Your task to perform on an android device: search for starred emails in the gmail app Image 0: 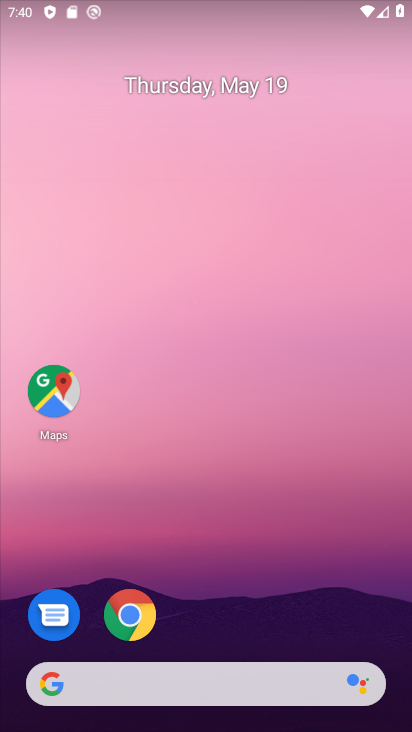
Step 0: drag from (190, 664) to (285, 241)
Your task to perform on an android device: search for starred emails in the gmail app Image 1: 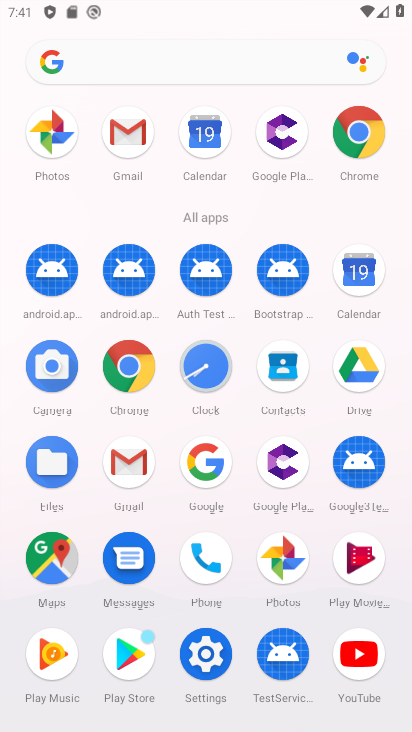
Step 1: click (131, 474)
Your task to perform on an android device: search for starred emails in the gmail app Image 2: 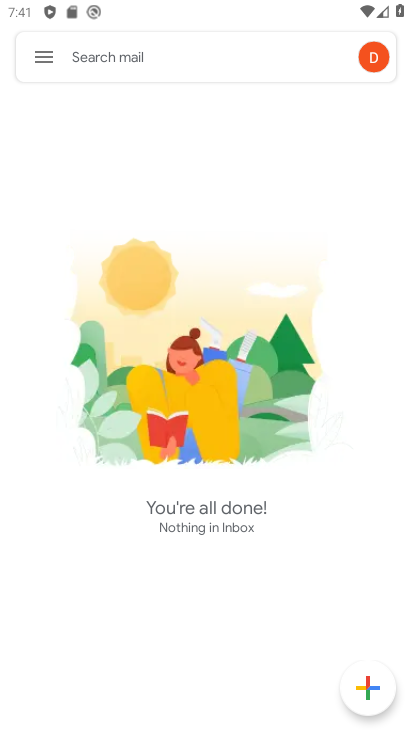
Step 2: click (45, 54)
Your task to perform on an android device: search for starred emails in the gmail app Image 3: 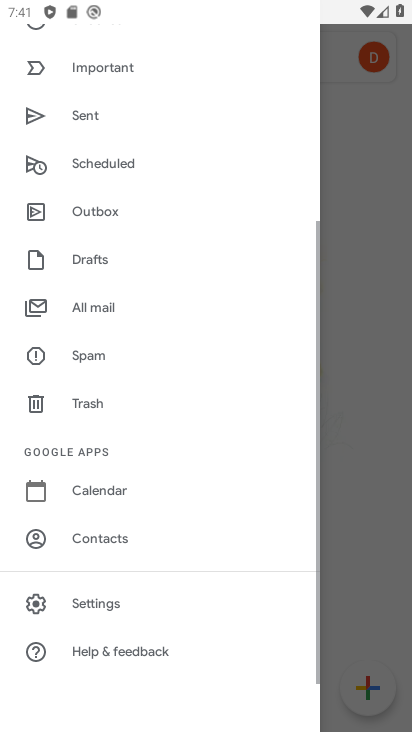
Step 3: drag from (140, 234) to (120, 509)
Your task to perform on an android device: search for starred emails in the gmail app Image 4: 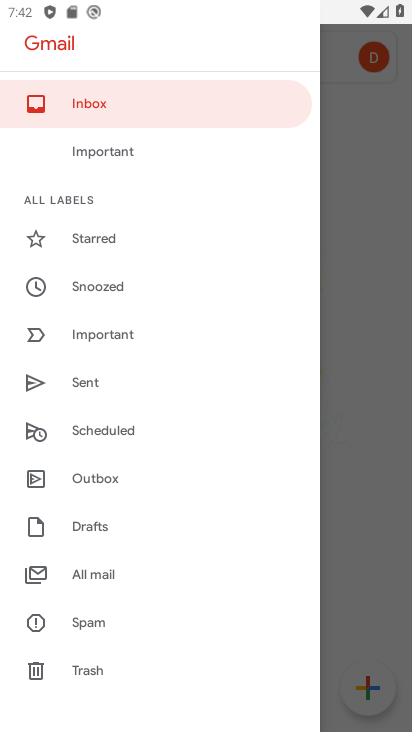
Step 4: click (122, 245)
Your task to perform on an android device: search for starred emails in the gmail app Image 5: 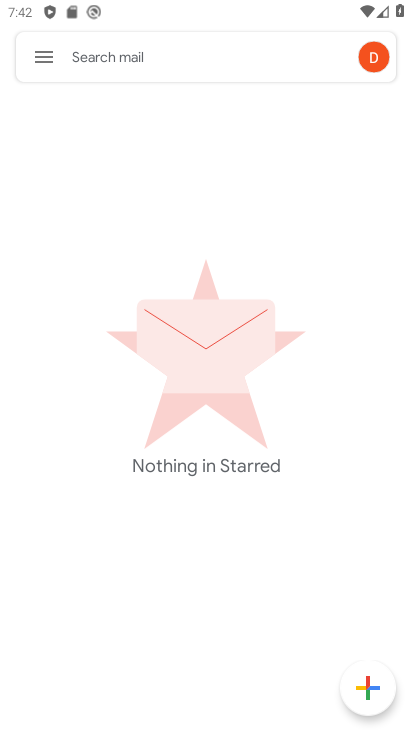
Step 5: task complete